Your task to perform on an android device: Open Google Chrome Image 0: 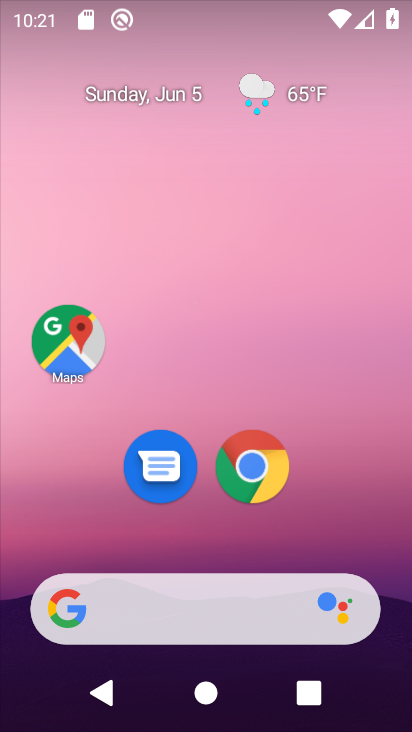
Step 0: drag from (341, 461) to (270, 15)
Your task to perform on an android device: Open Google Chrome Image 1: 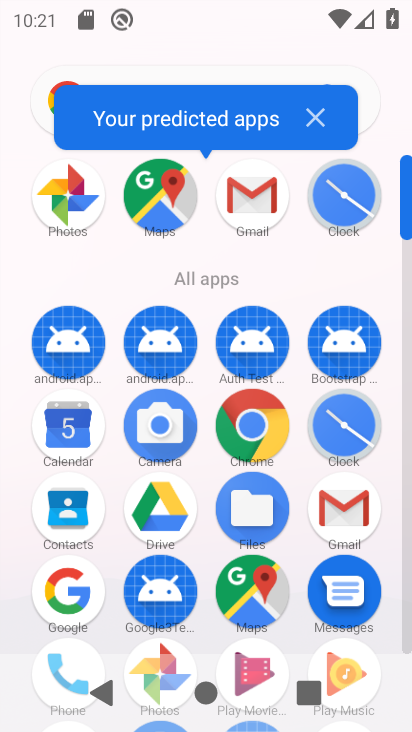
Step 1: click (252, 421)
Your task to perform on an android device: Open Google Chrome Image 2: 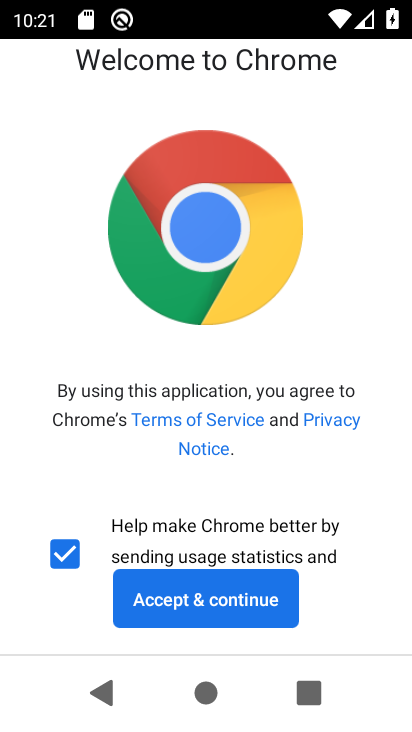
Step 2: click (235, 597)
Your task to perform on an android device: Open Google Chrome Image 3: 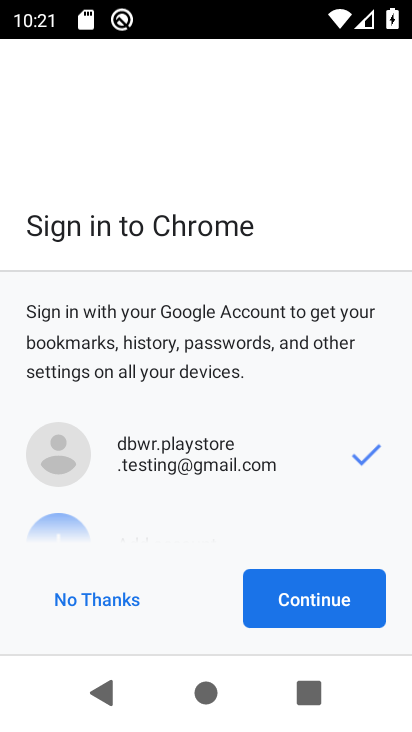
Step 3: click (333, 587)
Your task to perform on an android device: Open Google Chrome Image 4: 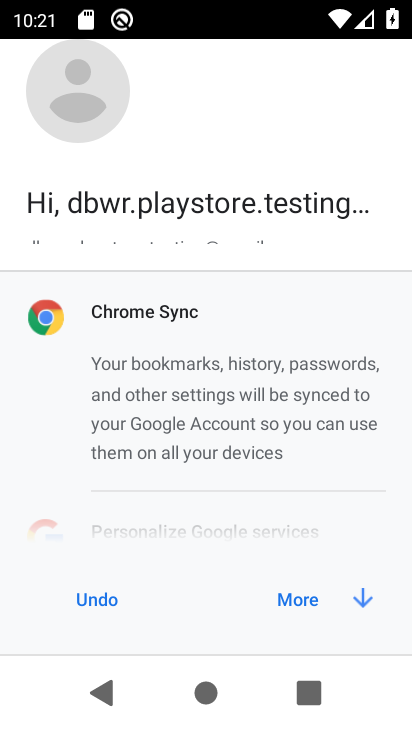
Step 4: click (300, 603)
Your task to perform on an android device: Open Google Chrome Image 5: 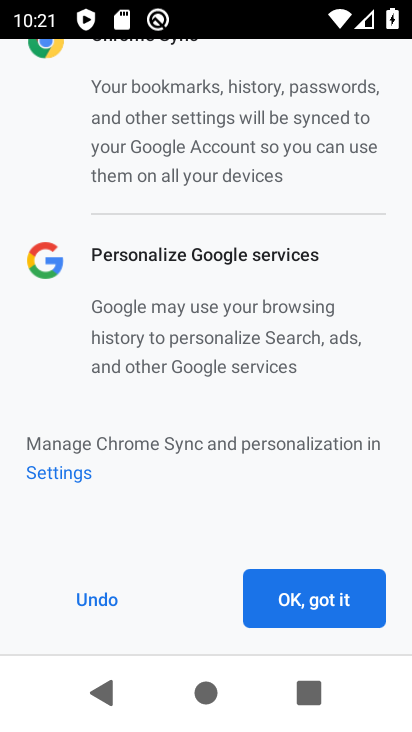
Step 5: click (300, 602)
Your task to perform on an android device: Open Google Chrome Image 6: 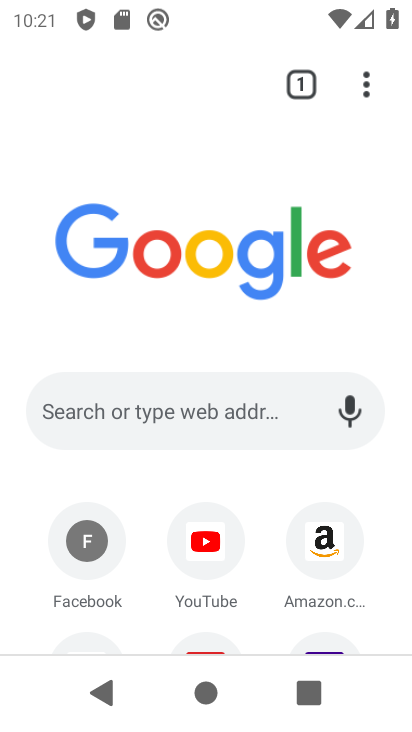
Step 6: task complete